Your task to perform on an android device: change notifications settings Image 0: 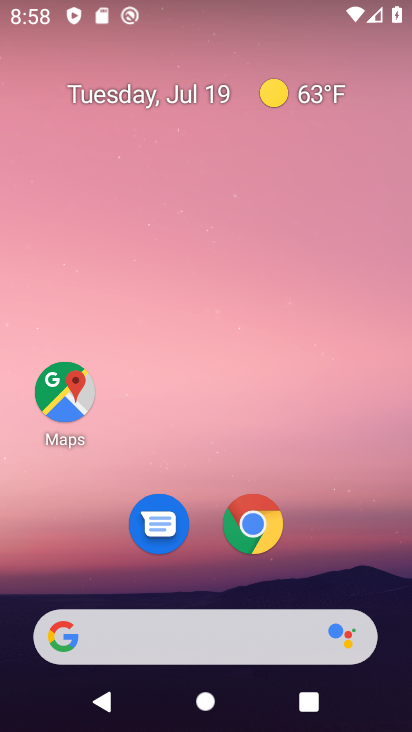
Step 0: drag from (202, 640) to (248, 143)
Your task to perform on an android device: change notifications settings Image 1: 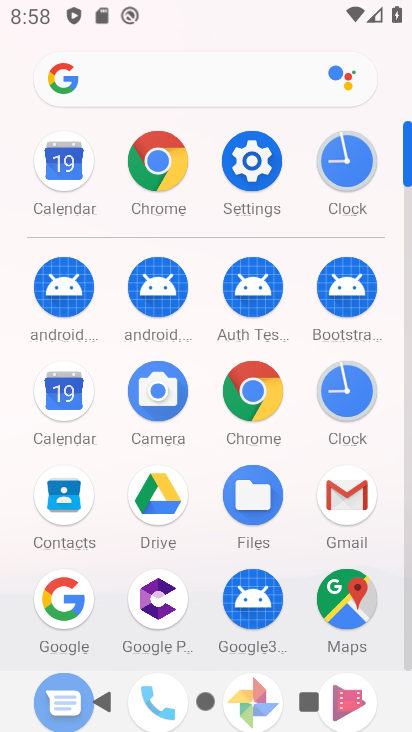
Step 1: click (251, 149)
Your task to perform on an android device: change notifications settings Image 2: 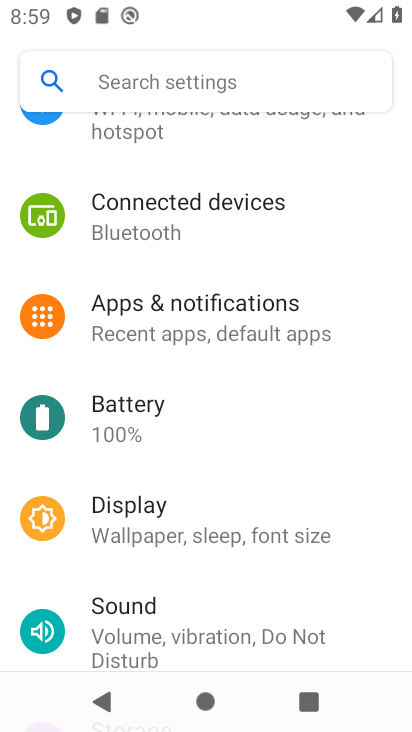
Step 2: click (196, 320)
Your task to perform on an android device: change notifications settings Image 3: 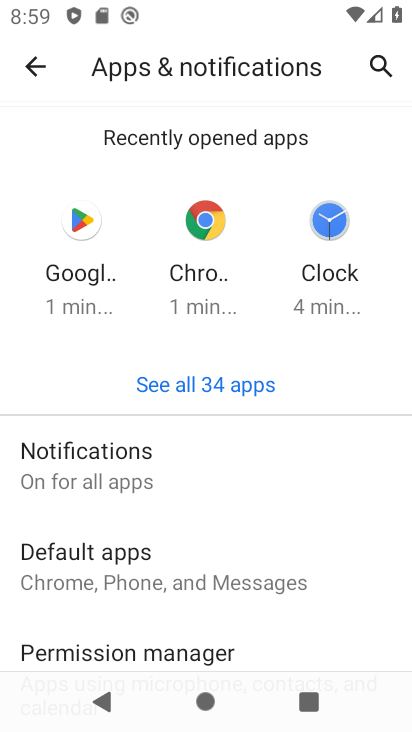
Step 3: click (121, 473)
Your task to perform on an android device: change notifications settings Image 4: 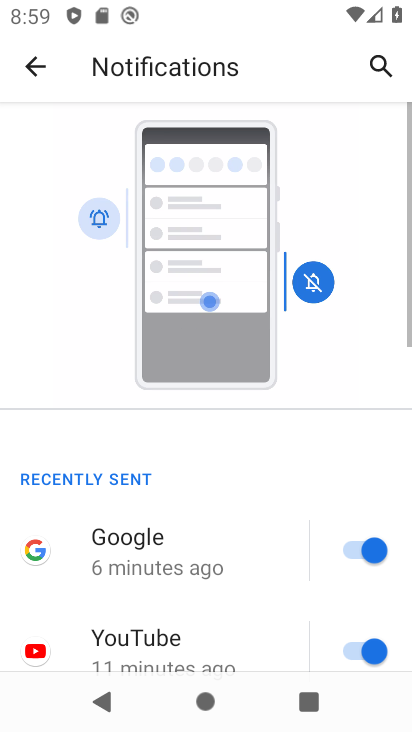
Step 4: drag from (176, 509) to (255, 155)
Your task to perform on an android device: change notifications settings Image 5: 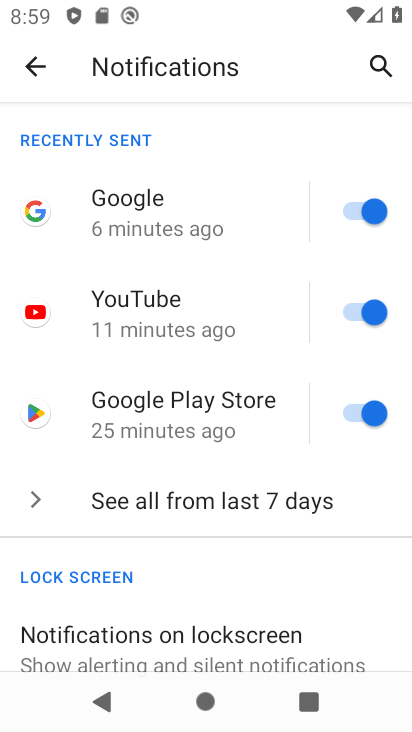
Step 5: click (355, 415)
Your task to perform on an android device: change notifications settings Image 6: 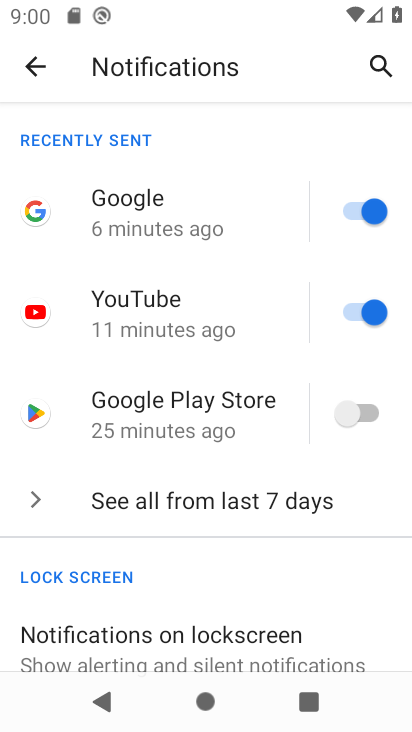
Step 6: task complete